Your task to perform on an android device: Go to sound settings Image 0: 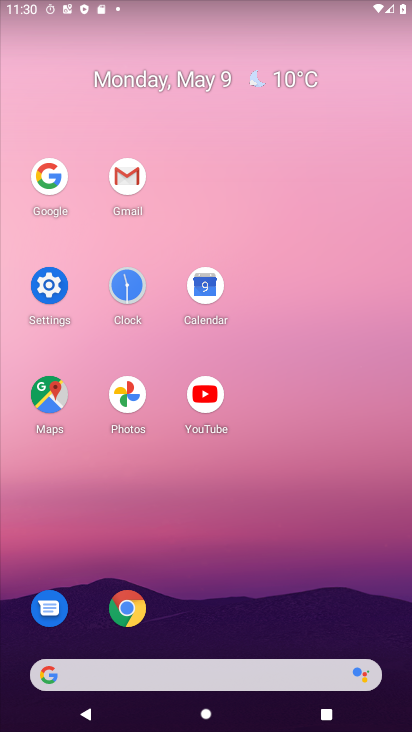
Step 0: click (48, 283)
Your task to perform on an android device: Go to sound settings Image 1: 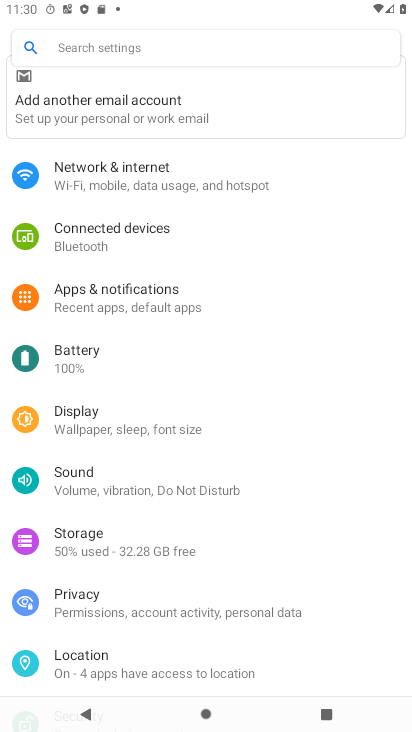
Step 1: click (124, 484)
Your task to perform on an android device: Go to sound settings Image 2: 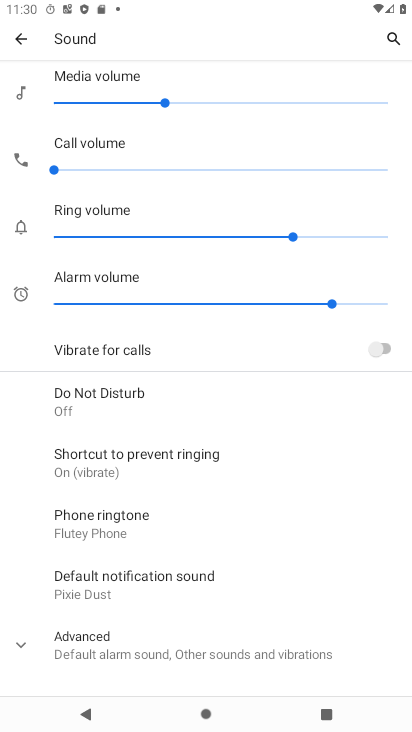
Step 2: task complete